Your task to perform on an android device: see tabs open on other devices in the chrome app Image 0: 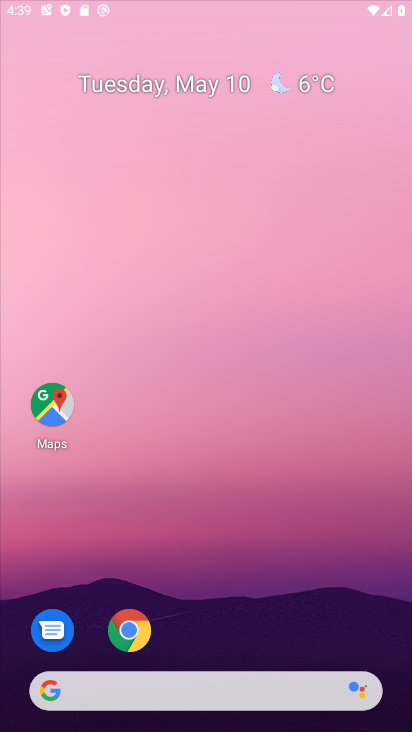
Step 0: click (312, 233)
Your task to perform on an android device: see tabs open on other devices in the chrome app Image 1: 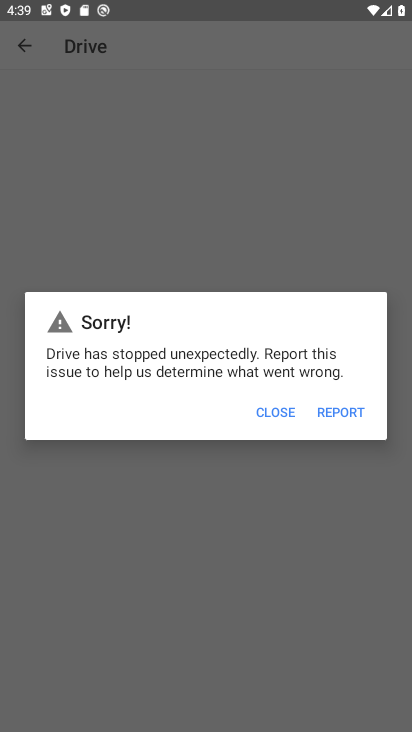
Step 1: press home button
Your task to perform on an android device: see tabs open on other devices in the chrome app Image 2: 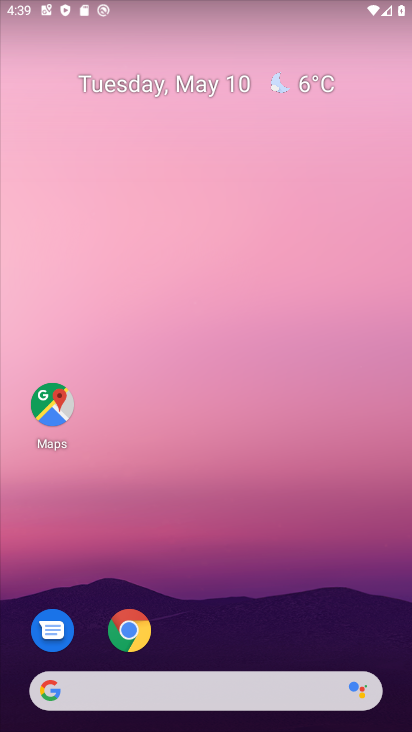
Step 2: drag from (320, 608) to (332, 125)
Your task to perform on an android device: see tabs open on other devices in the chrome app Image 3: 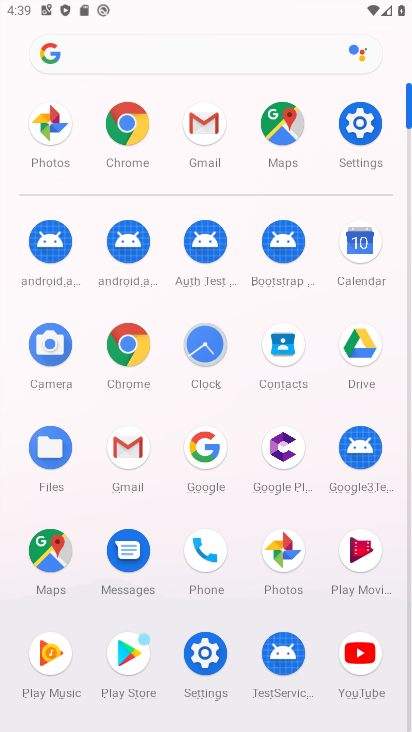
Step 3: click (121, 340)
Your task to perform on an android device: see tabs open on other devices in the chrome app Image 4: 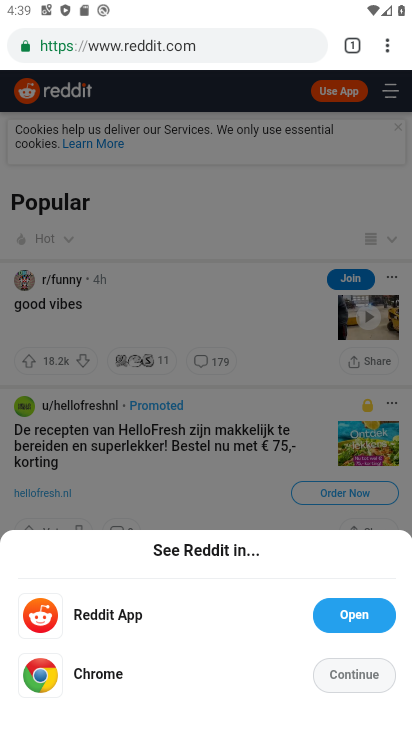
Step 4: click (385, 45)
Your task to perform on an android device: see tabs open on other devices in the chrome app Image 5: 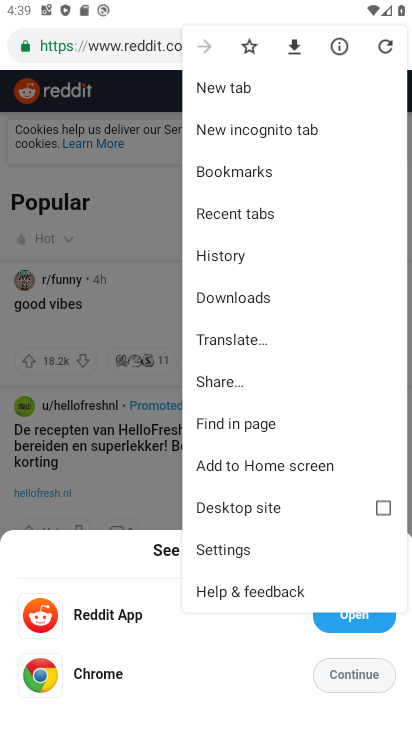
Step 5: drag from (280, 501) to (294, 326)
Your task to perform on an android device: see tabs open on other devices in the chrome app Image 6: 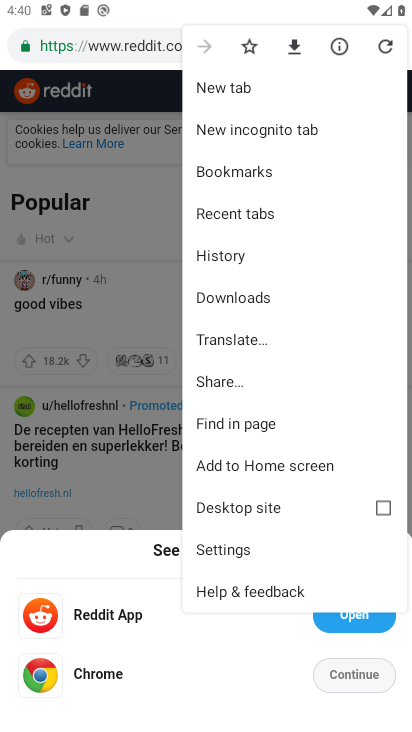
Step 6: click (252, 210)
Your task to perform on an android device: see tabs open on other devices in the chrome app Image 7: 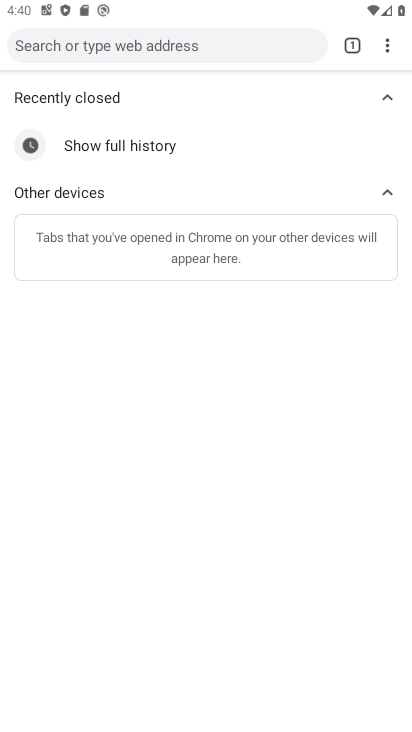
Step 7: task complete